Your task to perform on an android device: Open Reddit.com Image 0: 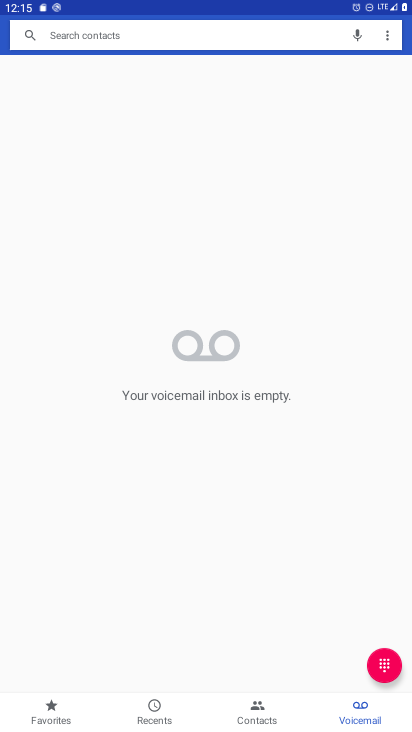
Step 0: press home button
Your task to perform on an android device: Open Reddit.com Image 1: 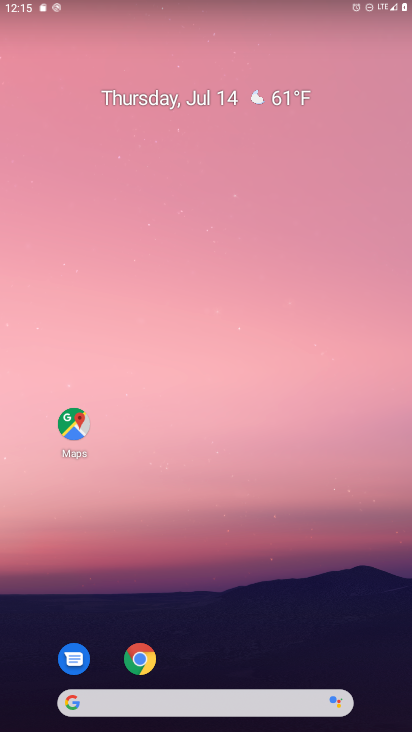
Step 1: click (139, 661)
Your task to perform on an android device: Open Reddit.com Image 2: 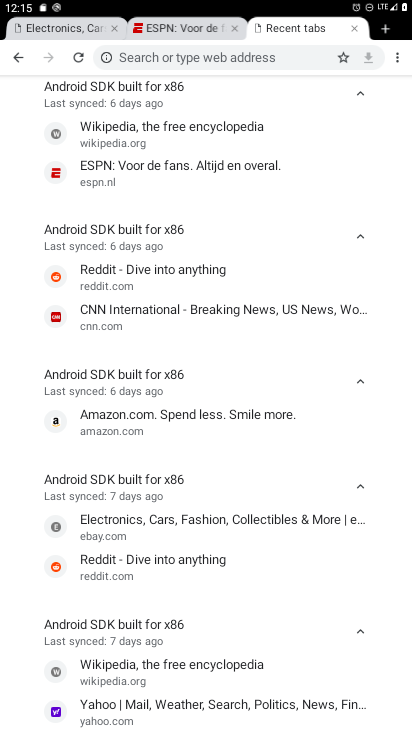
Step 2: click (177, 58)
Your task to perform on an android device: Open Reddit.com Image 3: 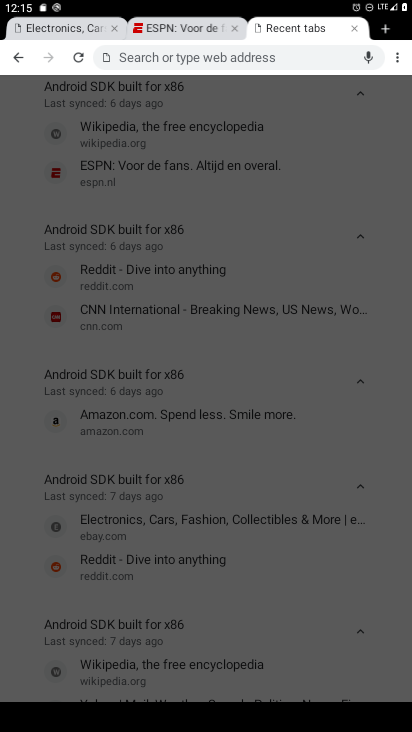
Step 3: type "Reddit.com"
Your task to perform on an android device: Open Reddit.com Image 4: 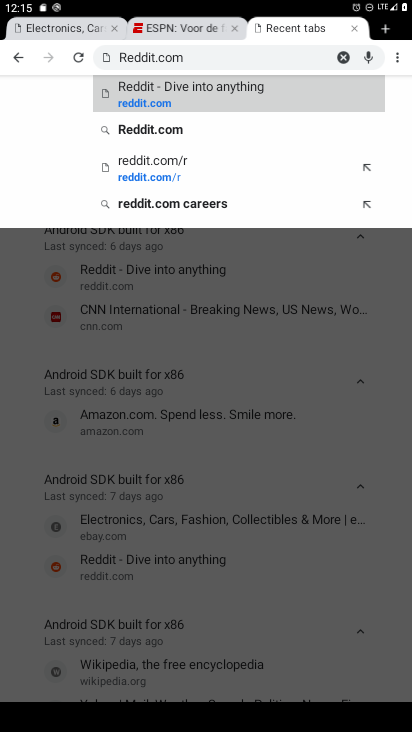
Step 4: click (139, 88)
Your task to perform on an android device: Open Reddit.com Image 5: 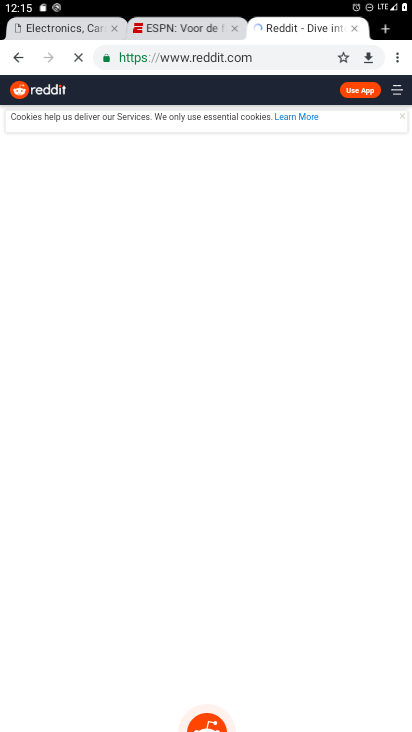
Step 5: task complete